Your task to perform on an android device: turn on airplane mode Image 0: 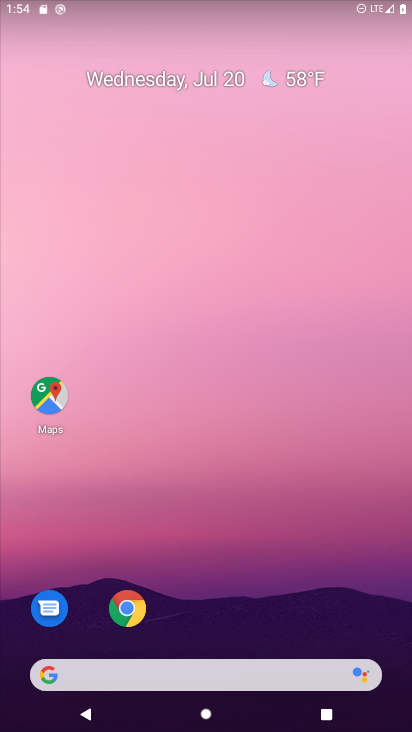
Step 0: drag from (233, 727) to (220, 111)
Your task to perform on an android device: turn on airplane mode Image 1: 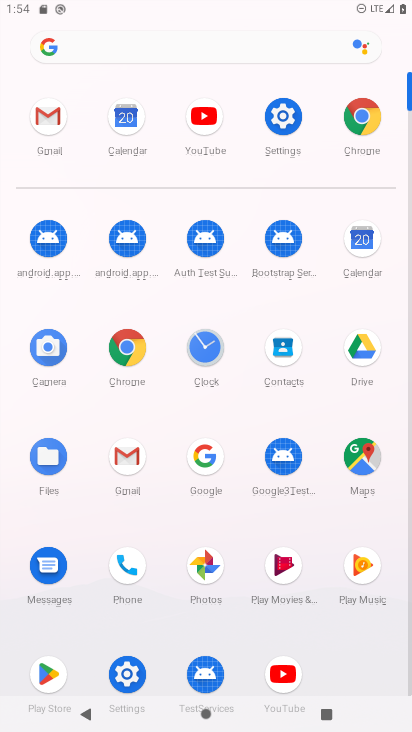
Step 1: click (285, 115)
Your task to perform on an android device: turn on airplane mode Image 2: 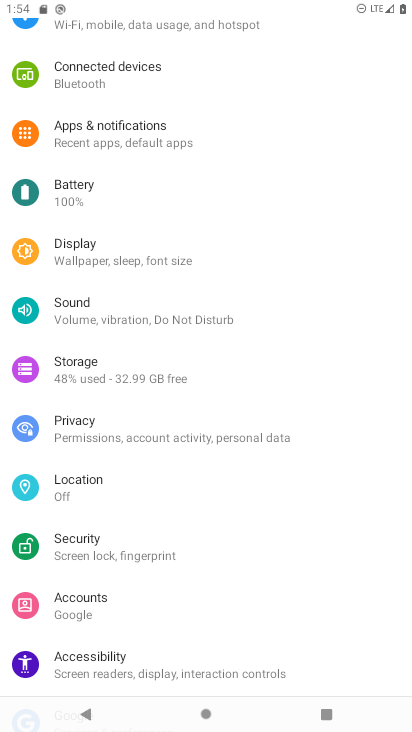
Step 2: drag from (118, 91) to (106, 424)
Your task to perform on an android device: turn on airplane mode Image 3: 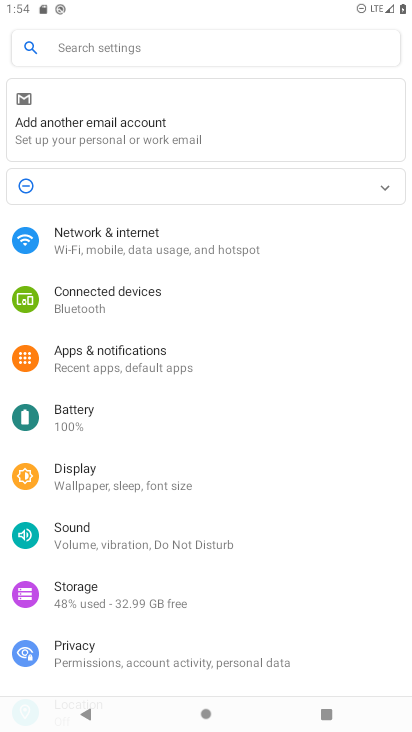
Step 3: click (103, 234)
Your task to perform on an android device: turn on airplane mode Image 4: 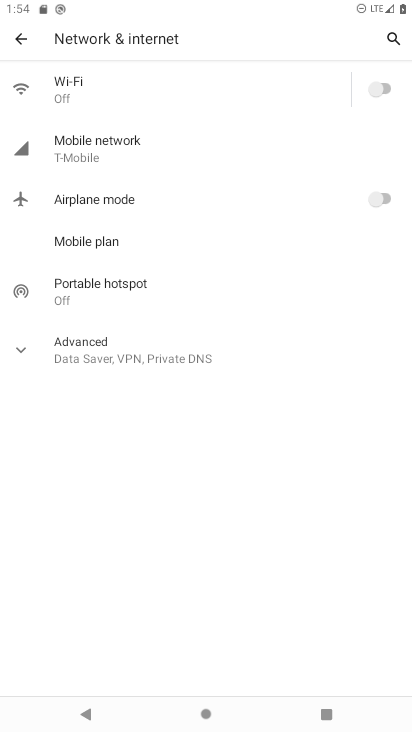
Step 4: click (385, 195)
Your task to perform on an android device: turn on airplane mode Image 5: 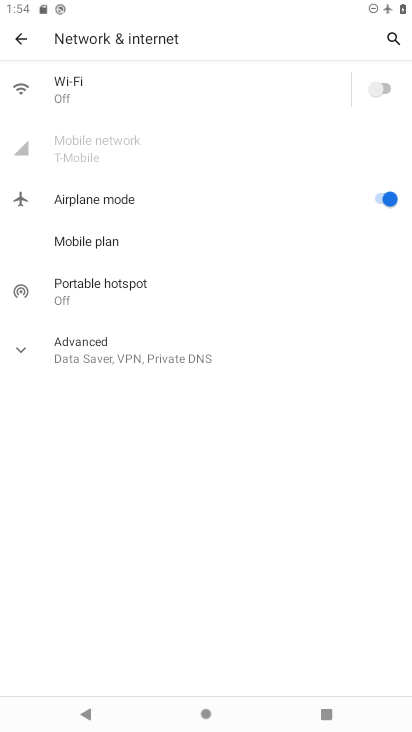
Step 5: task complete